Your task to perform on an android device: toggle sleep mode Image 0: 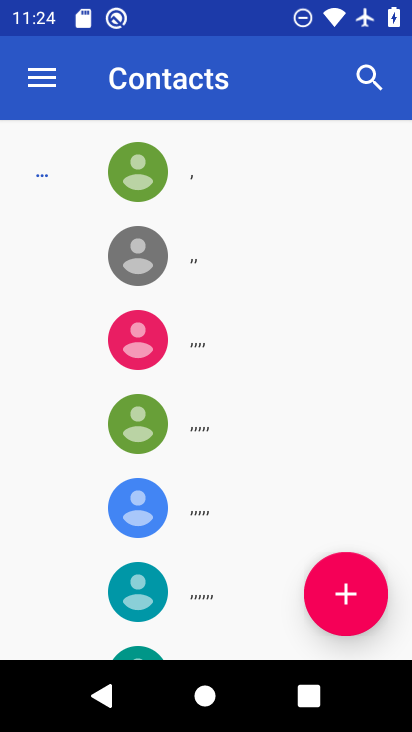
Step 0: press back button
Your task to perform on an android device: toggle sleep mode Image 1: 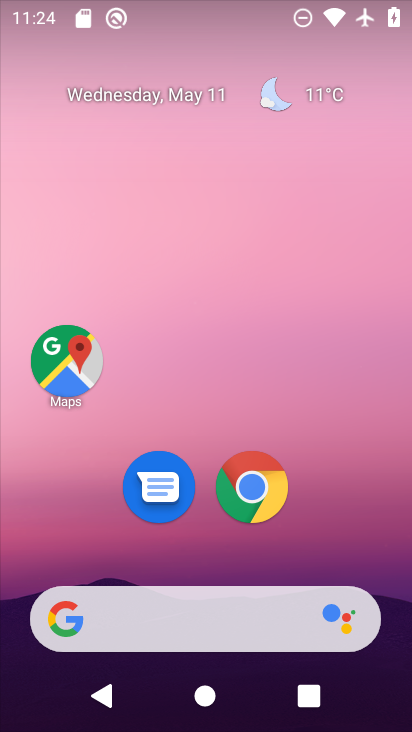
Step 1: drag from (338, 510) to (250, 2)
Your task to perform on an android device: toggle sleep mode Image 2: 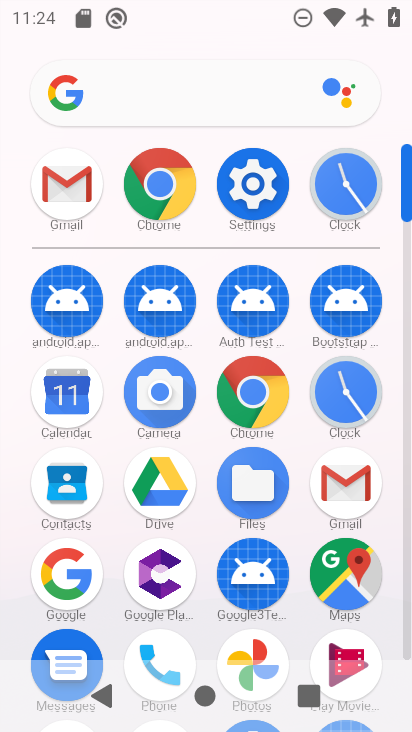
Step 2: click (253, 183)
Your task to perform on an android device: toggle sleep mode Image 3: 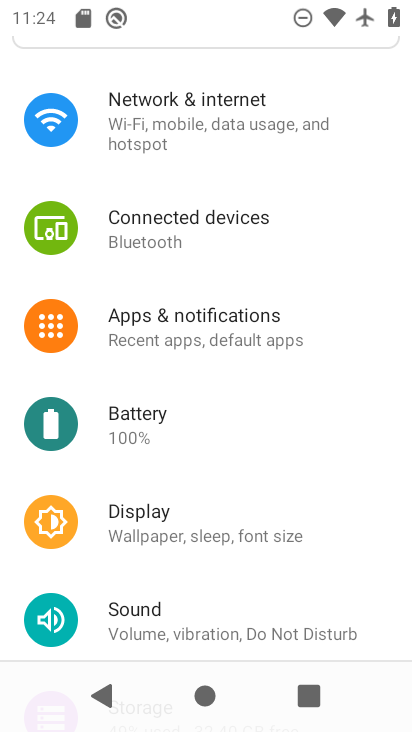
Step 3: drag from (339, 562) to (317, 191)
Your task to perform on an android device: toggle sleep mode Image 4: 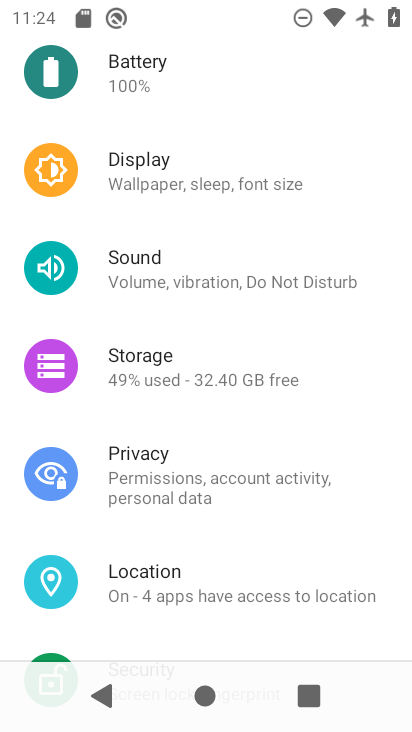
Step 4: drag from (276, 463) to (268, 97)
Your task to perform on an android device: toggle sleep mode Image 5: 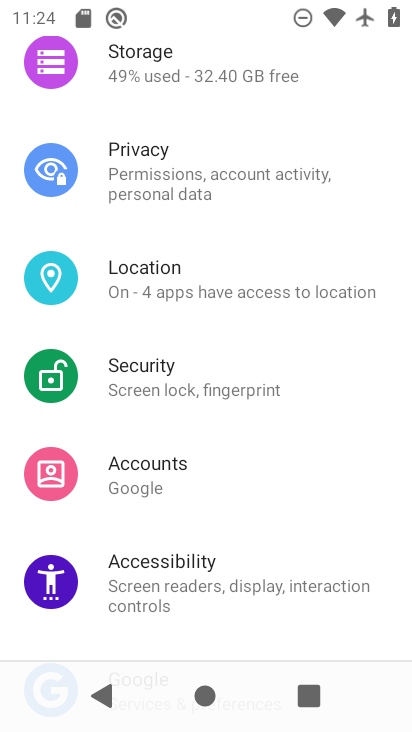
Step 5: drag from (280, 123) to (302, 396)
Your task to perform on an android device: toggle sleep mode Image 6: 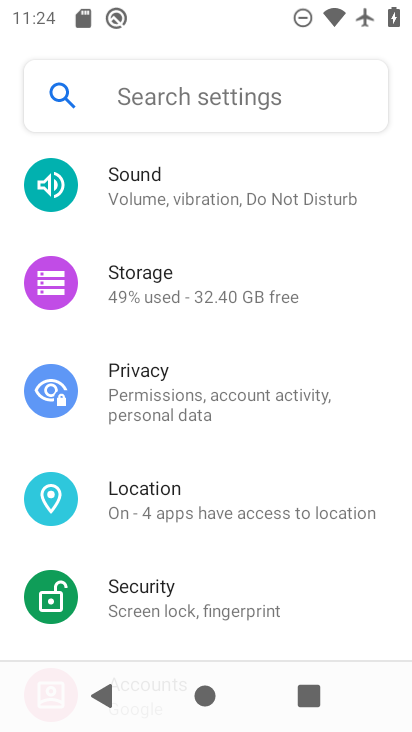
Step 6: drag from (254, 180) to (227, 480)
Your task to perform on an android device: toggle sleep mode Image 7: 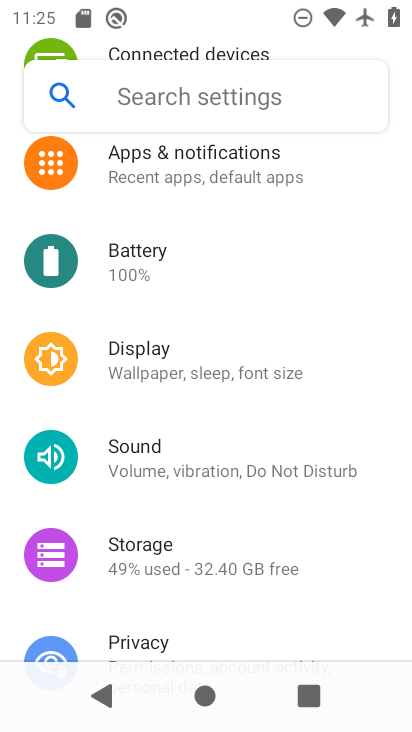
Step 7: drag from (291, 256) to (263, 541)
Your task to perform on an android device: toggle sleep mode Image 8: 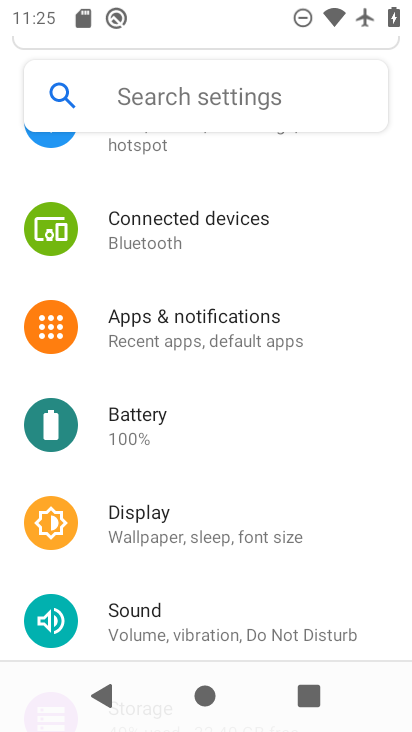
Step 8: drag from (303, 247) to (271, 482)
Your task to perform on an android device: toggle sleep mode Image 9: 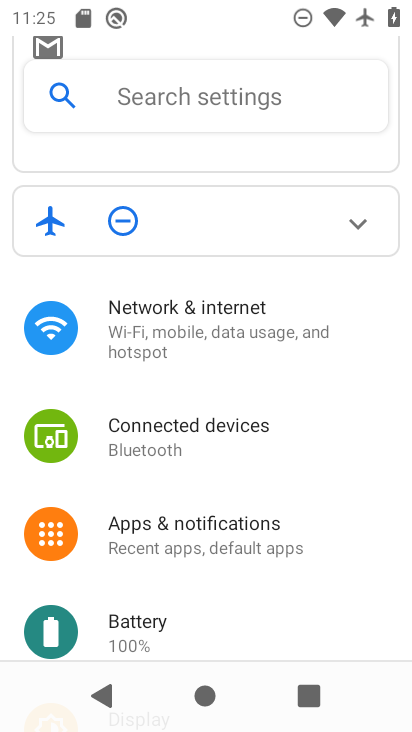
Step 9: drag from (278, 559) to (270, 260)
Your task to perform on an android device: toggle sleep mode Image 10: 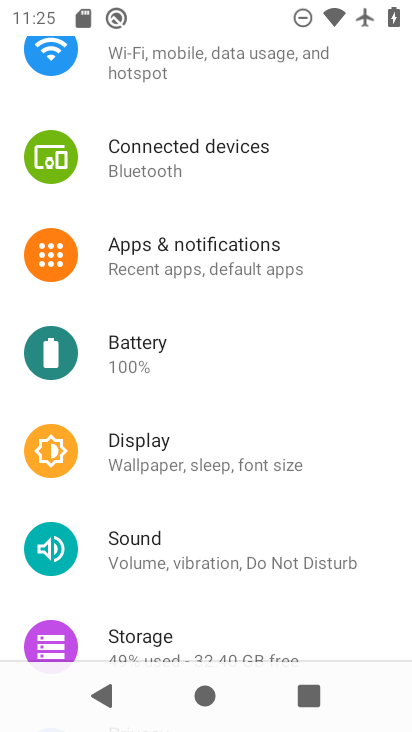
Step 10: drag from (255, 530) to (270, 218)
Your task to perform on an android device: toggle sleep mode Image 11: 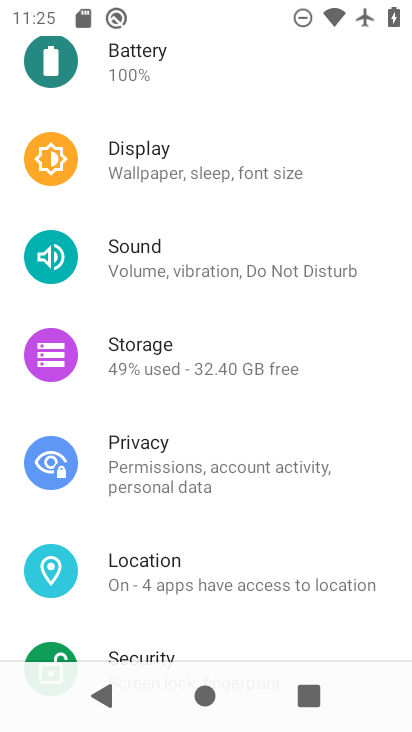
Step 11: click (269, 164)
Your task to perform on an android device: toggle sleep mode Image 12: 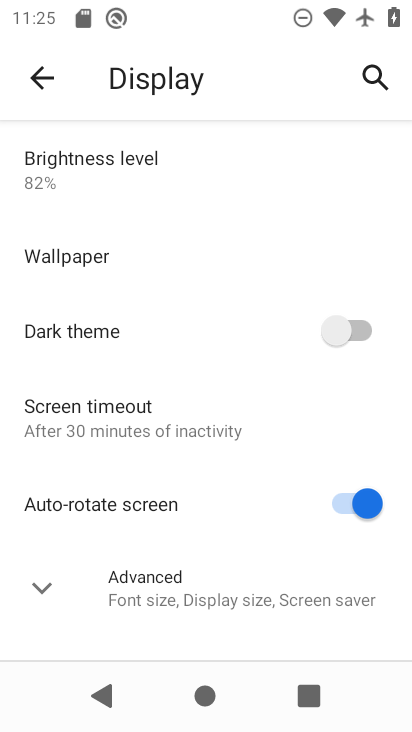
Step 12: drag from (223, 536) to (222, 209)
Your task to perform on an android device: toggle sleep mode Image 13: 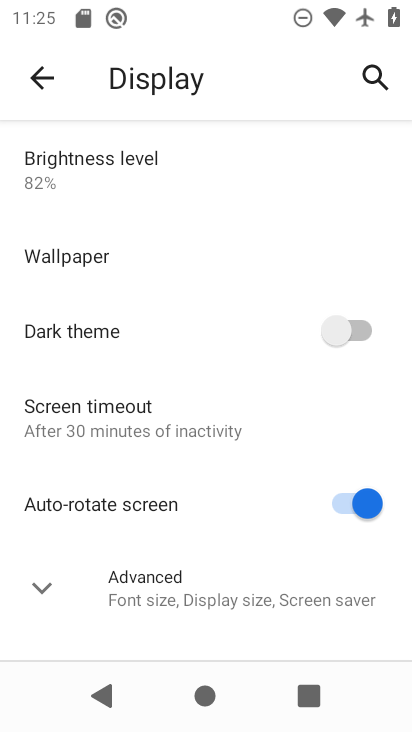
Step 13: click (22, 576)
Your task to perform on an android device: toggle sleep mode Image 14: 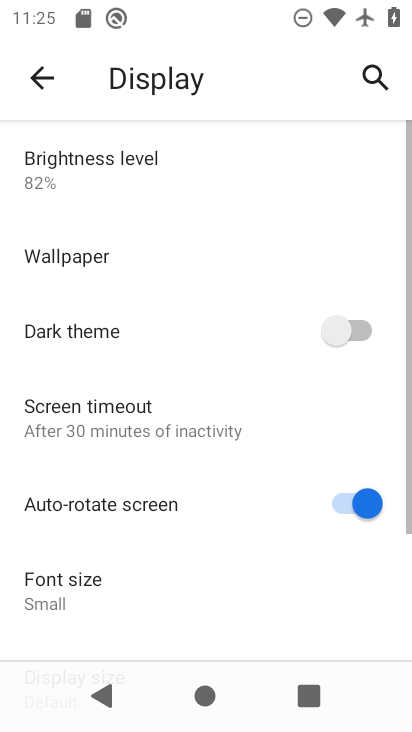
Step 14: task complete